Your task to perform on an android device: delete the emails in spam in the gmail app Image 0: 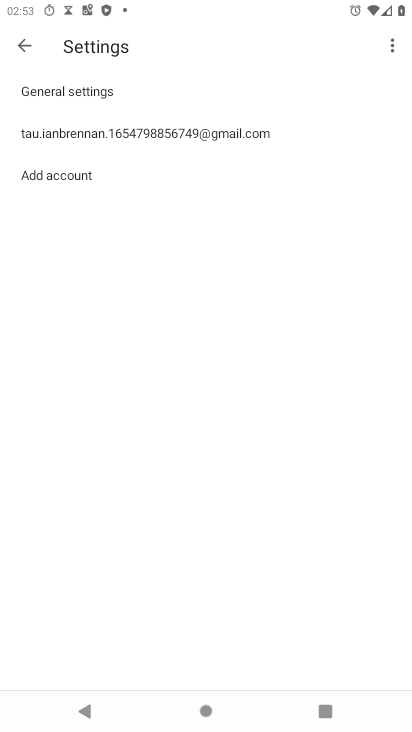
Step 0: press home button
Your task to perform on an android device: delete the emails in spam in the gmail app Image 1: 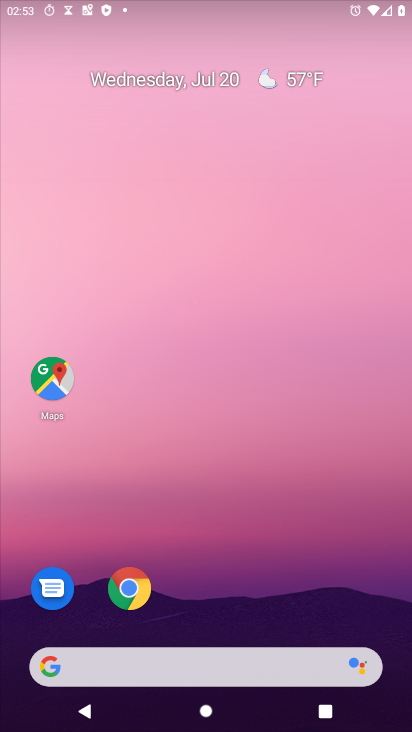
Step 1: drag from (310, 600) to (271, 34)
Your task to perform on an android device: delete the emails in spam in the gmail app Image 2: 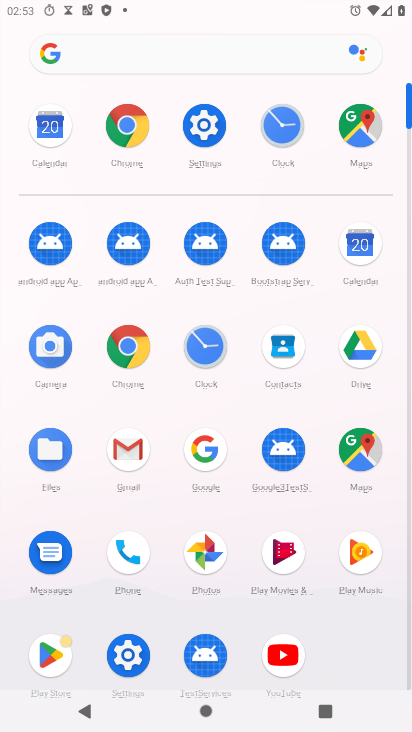
Step 2: click (133, 455)
Your task to perform on an android device: delete the emails in spam in the gmail app Image 3: 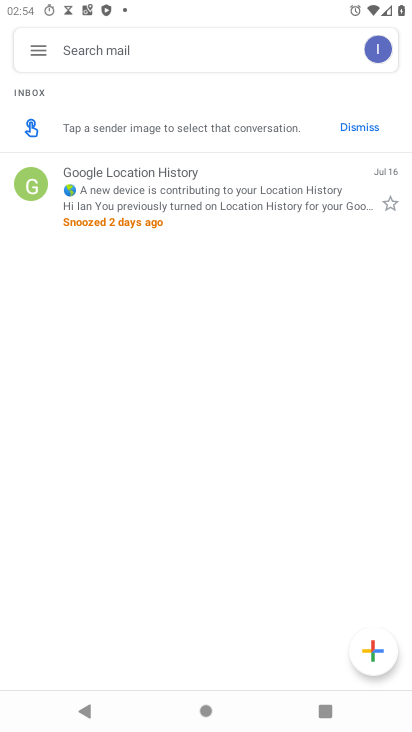
Step 3: click (51, 51)
Your task to perform on an android device: delete the emails in spam in the gmail app Image 4: 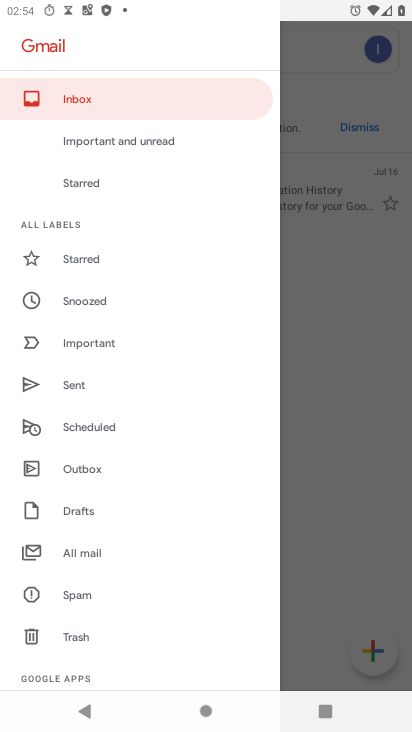
Step 4: click (102, 595)
Your task to perform on an android device: delete the emails in spam in the gmail app Image 5: 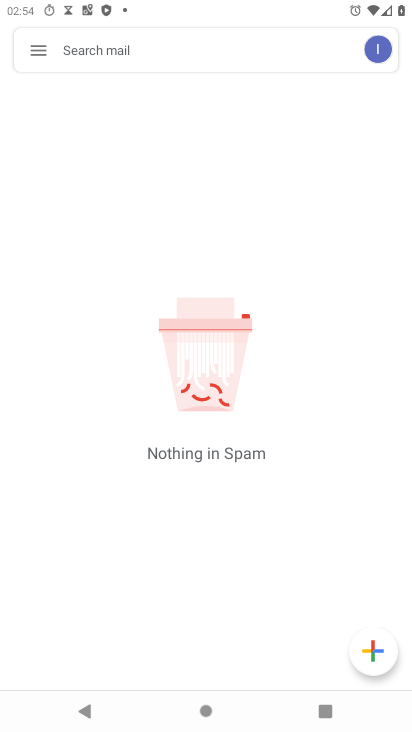
Step 5: task complete